Your task to perform on an android device: What's the weather today? Image 0: 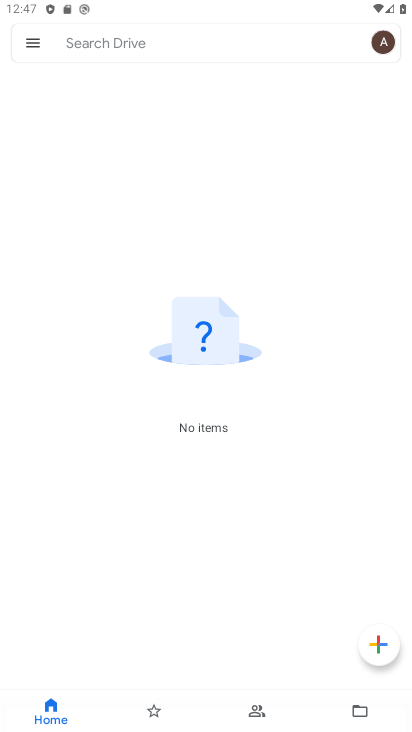
Step 0: press home button
Your task to perform on an android device: What's the weather today? Image 1: 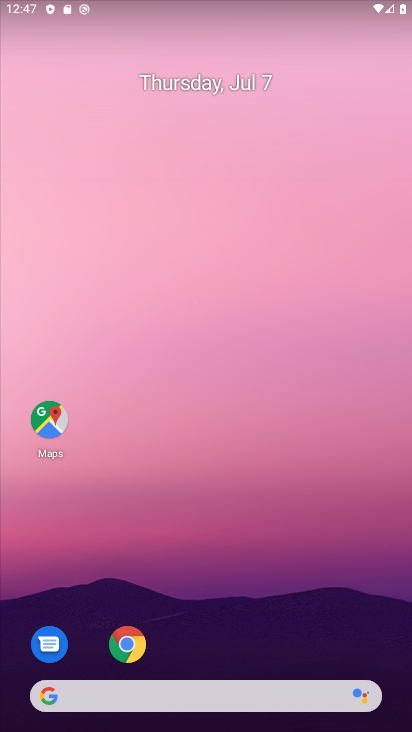
Step 1: click (128, 646)
Your task to perform on an android device: What's the weather today? Image 2: 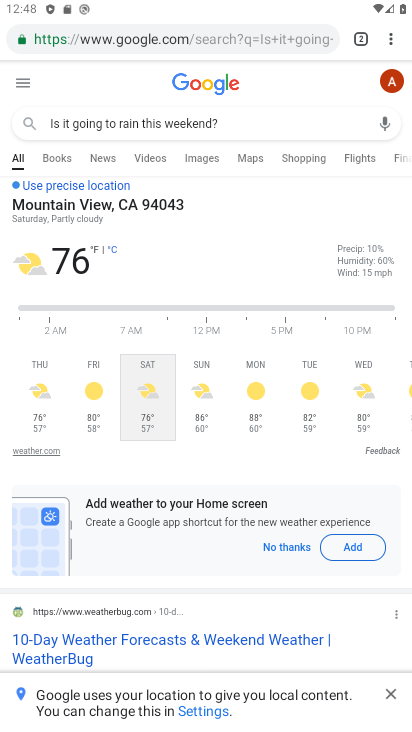
Step 2: click (250, 116)
Your task to perform on an android device: What's the weather today? Image 3: 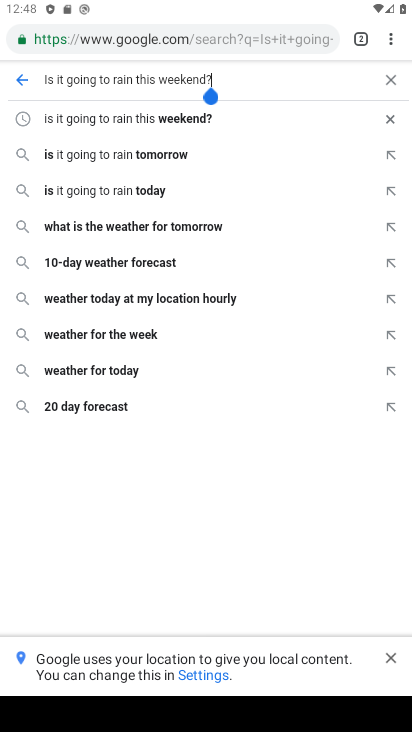
Step 3: click (387, 76)
Your task to perform on an android device: What's the weather today? Image 4: 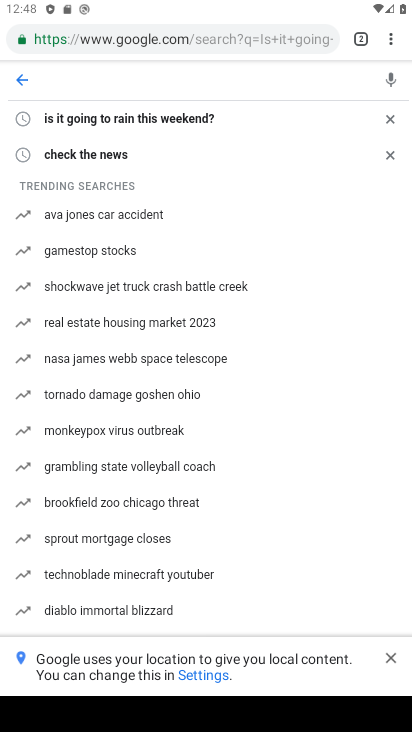
Step 4: type "Is it going to rain this weekend?"
Your task to perform on an android device: What's the weather today? Image 5: 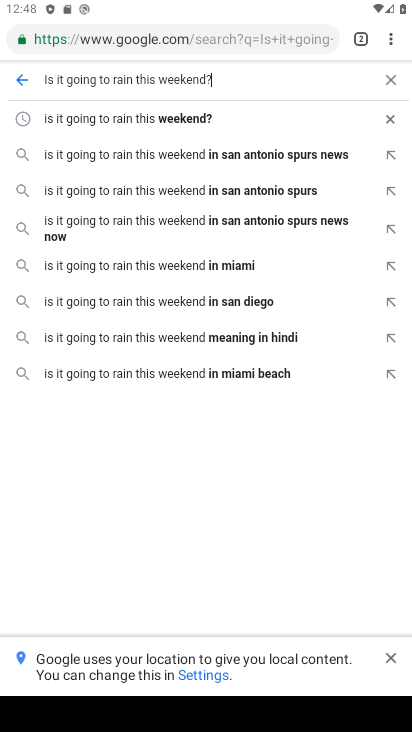
Step 5: click (388, 79)
Your task to perform on an android device: What's the weather today? Image 6: 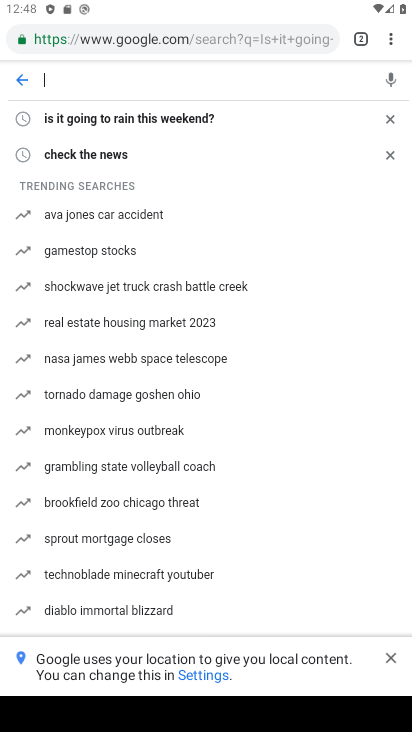
Step 6: type "What's the weather today?"
Your task to perform on an android device: What's the weather today? Image 7: 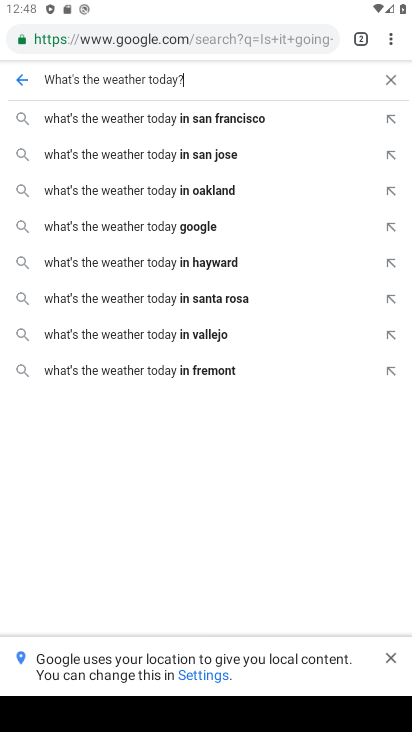
Step 7: press enter
Your task to perform on an android device: What's the weather today? Image 8: 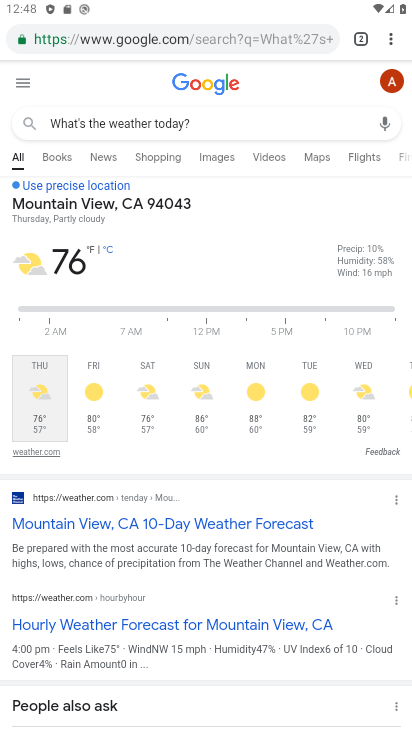
Step 8: task complete